Your task to perform on an android device: check battery use Image 0: 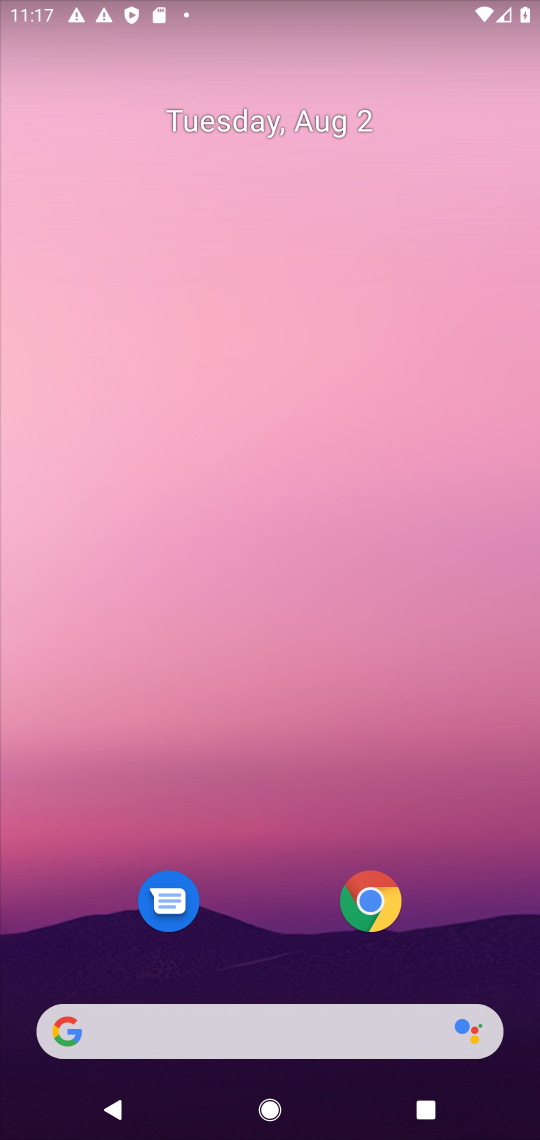
Step 0: drag from (521, 1083) to (418, 196)
Your task to perform on an android device: check battery use Image 1: 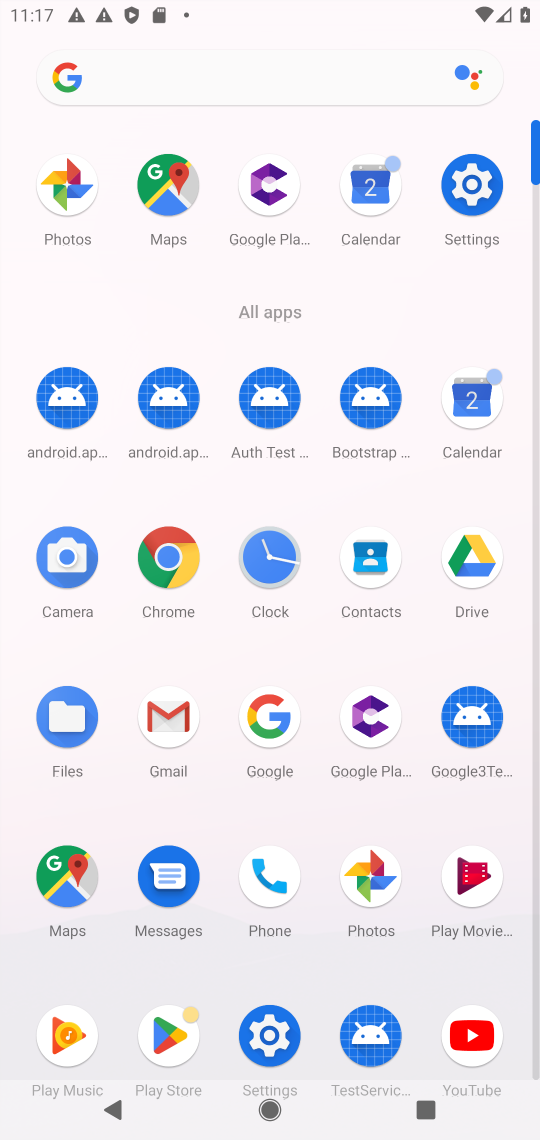
Step 1: click (474, 195)
Your task to perform on an android device: check battery use Image 2: 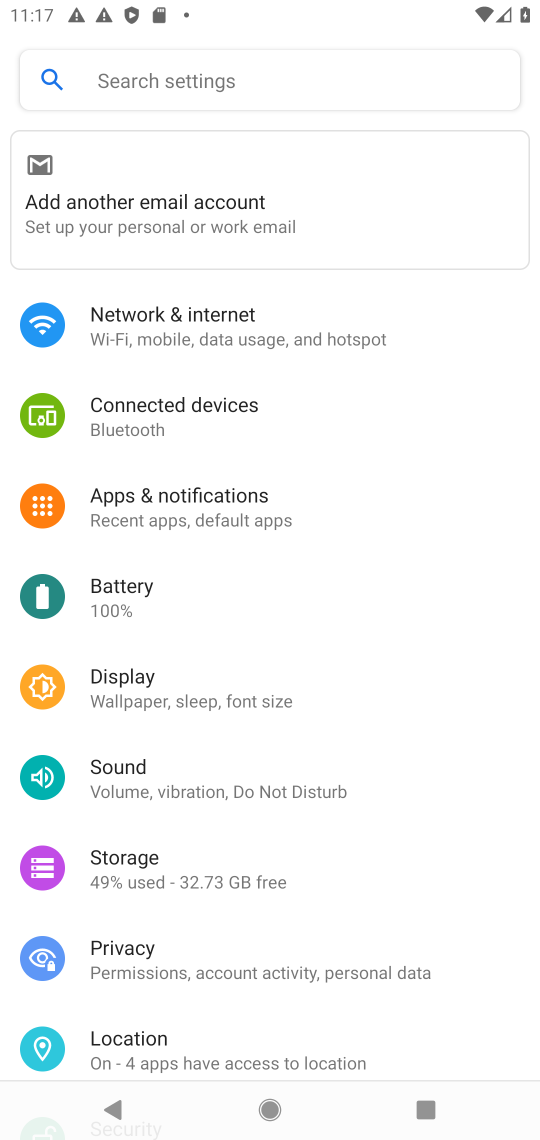
Step 2: click (123, 586)
Your task to perform on an android device: check battery use Image 3: 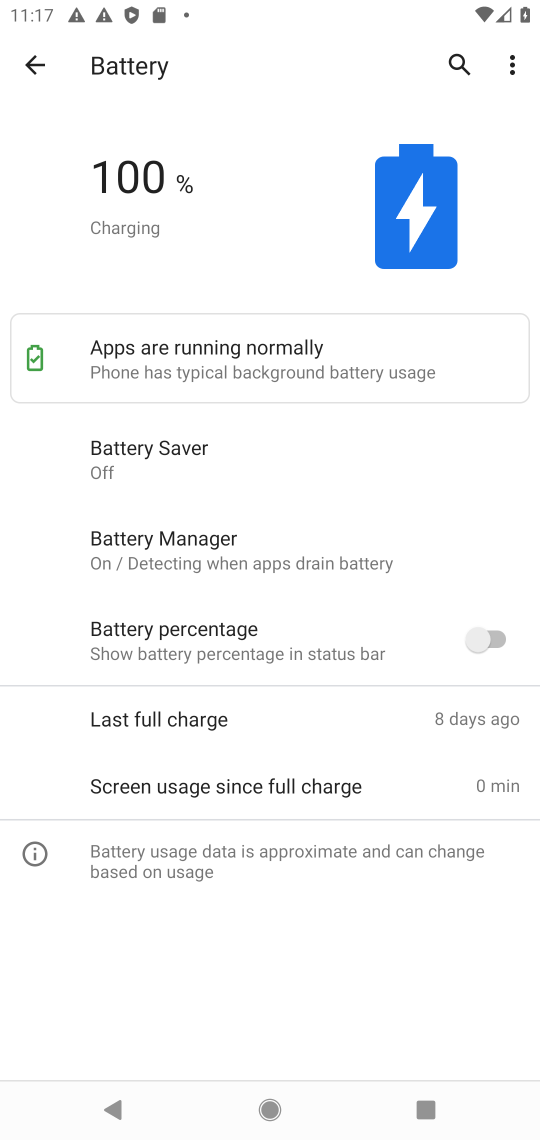
Step 3: click (517, 58)
Your task to perform on an android device: check battery use Image 4: 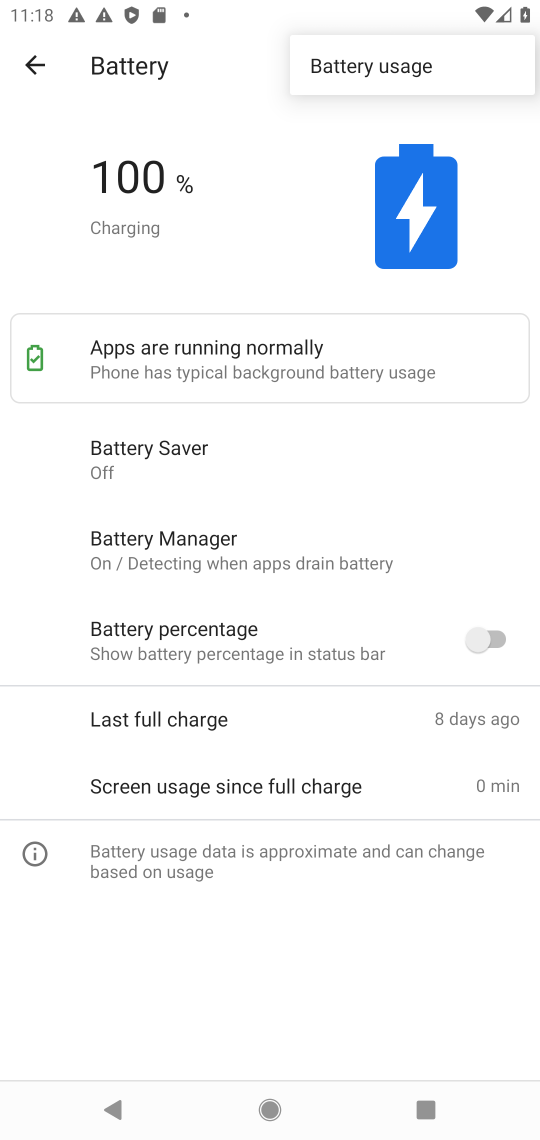
Step 4: click (394, 63)
Your task to perform on an android device: check battery use Image 5: 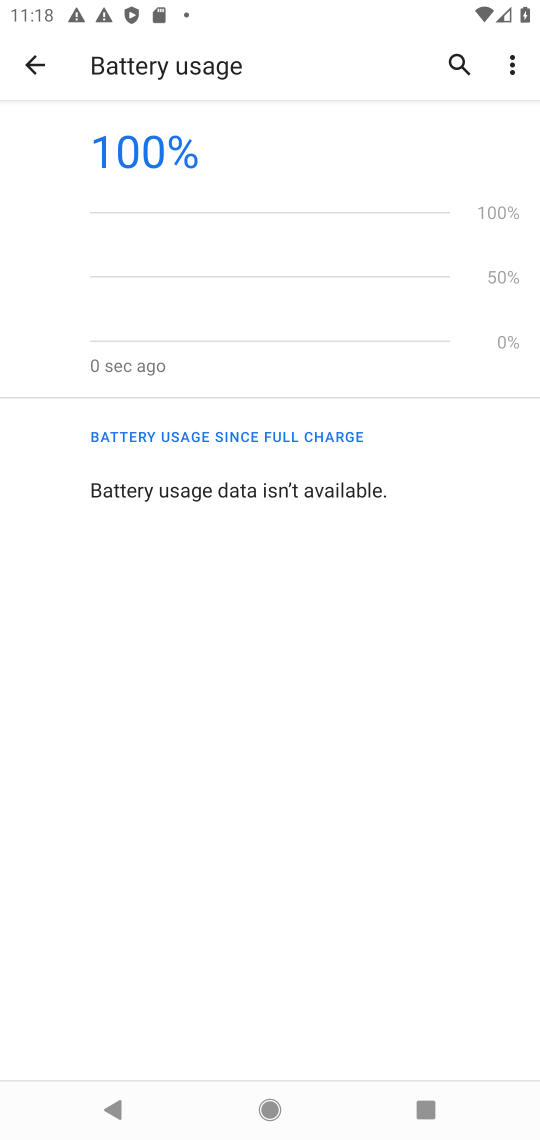
Step 5: task complete